Your task to perform on an android device: check storage Image 0: 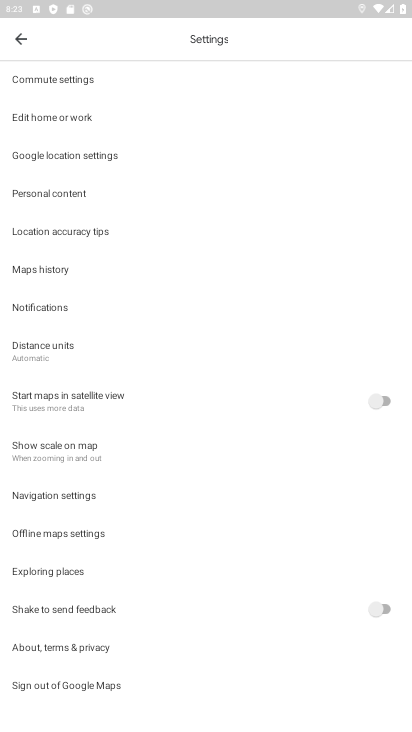
Step 0: press home button
Your task to perform on an android device: check storage Image 1: 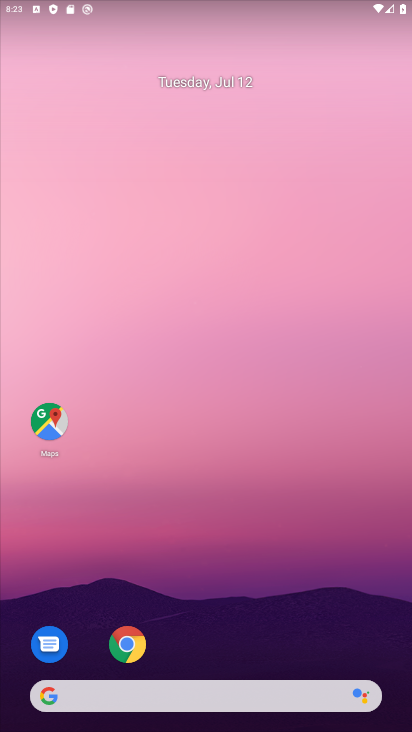
Step 1: drag from (372, 610) to (287, 217)
Your task to perform on an android device: check storage Image 2: 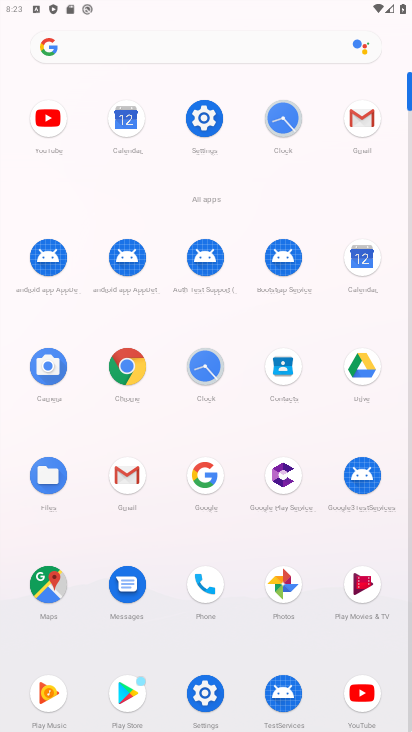
Step 2: click (201, 694)
Your task to perform on an android device: check storage Image 3: 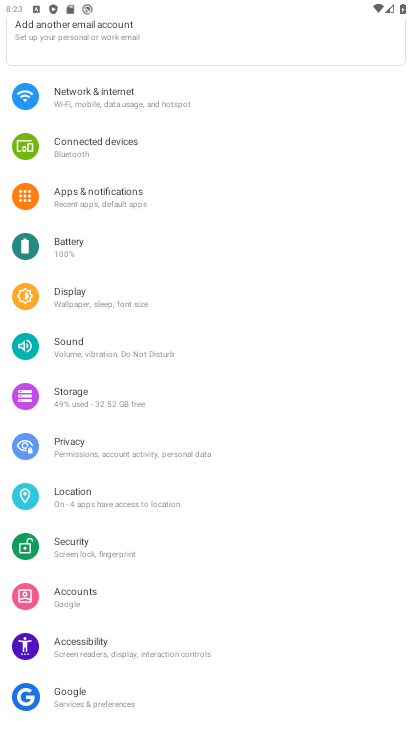
Step 3: click (75, 398)
Your task to perform on an android device: check storage Image 4: 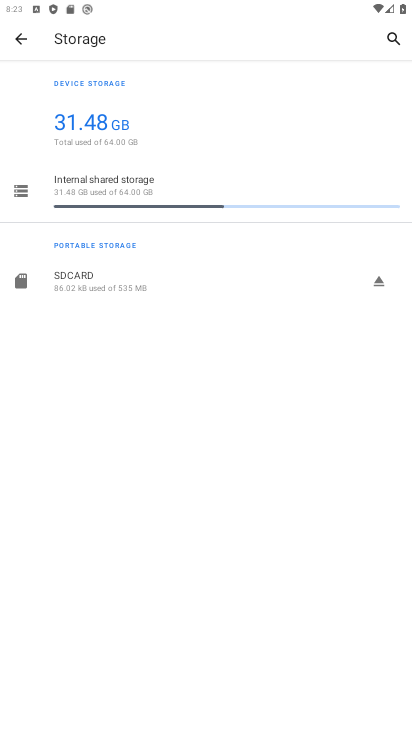
Step 4: task complete